Your task to perform on an android device: Go to sound settings Image 0: 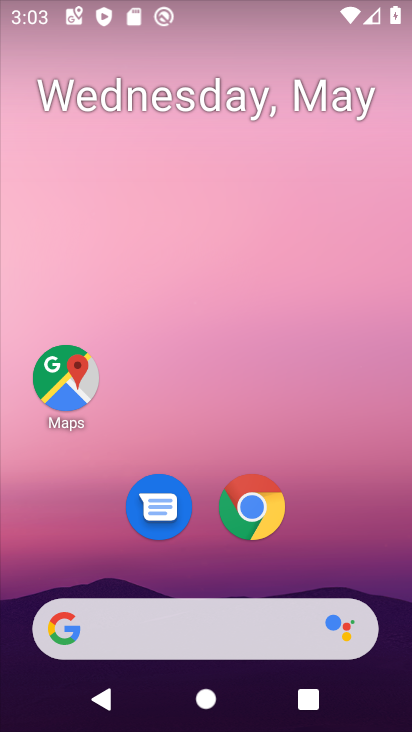
Step 0: drag from (166, 542) to (218, 137)
Your task to perform on an android device: Go to sound settings Image 1: 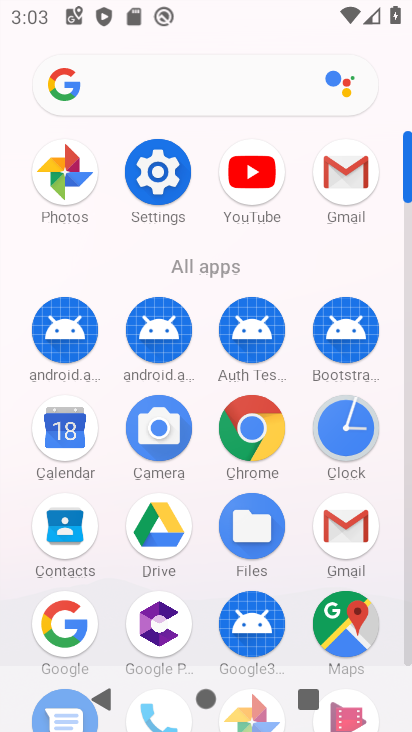
Step 1: click (174, 180)
Your task to perform on an android device: Go to sound settings Image 2: 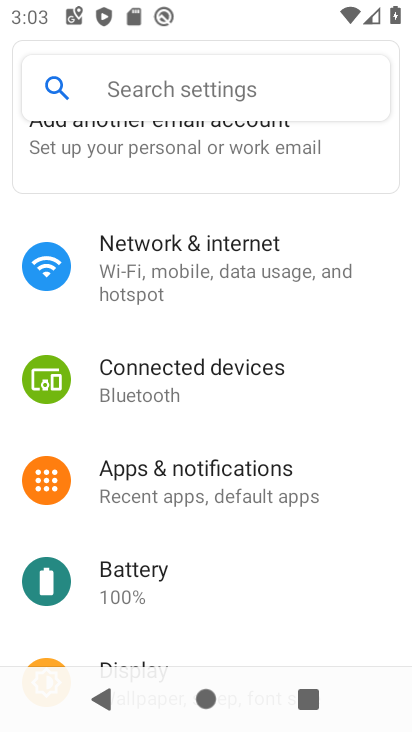
Step 2: drag from (110, 619) to (221, 168)
Your task to perform on an android device: Go to sound settings Image 3: 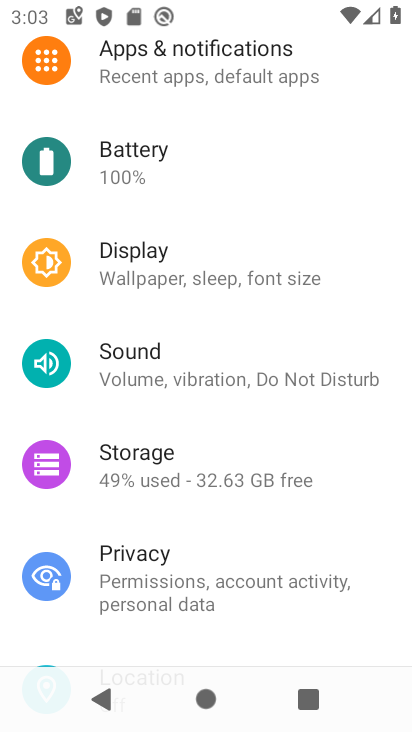
Step 3: click (125, 374)
Your task to perform on an android device: Go to sound settings Image 4: 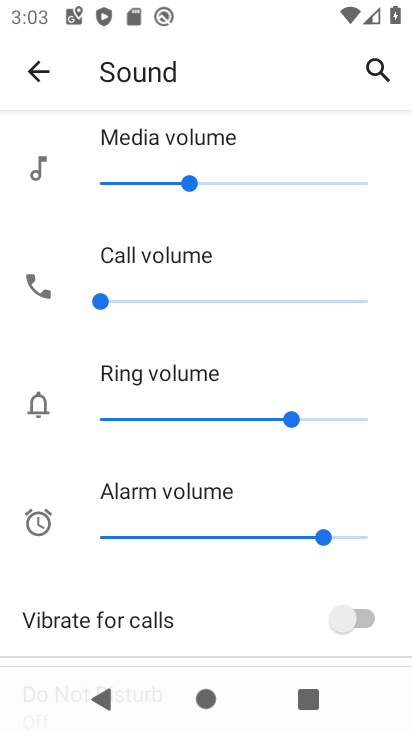
Step 4: task complete